Your task to perform on an android device: toggle sleep mode Image 0: 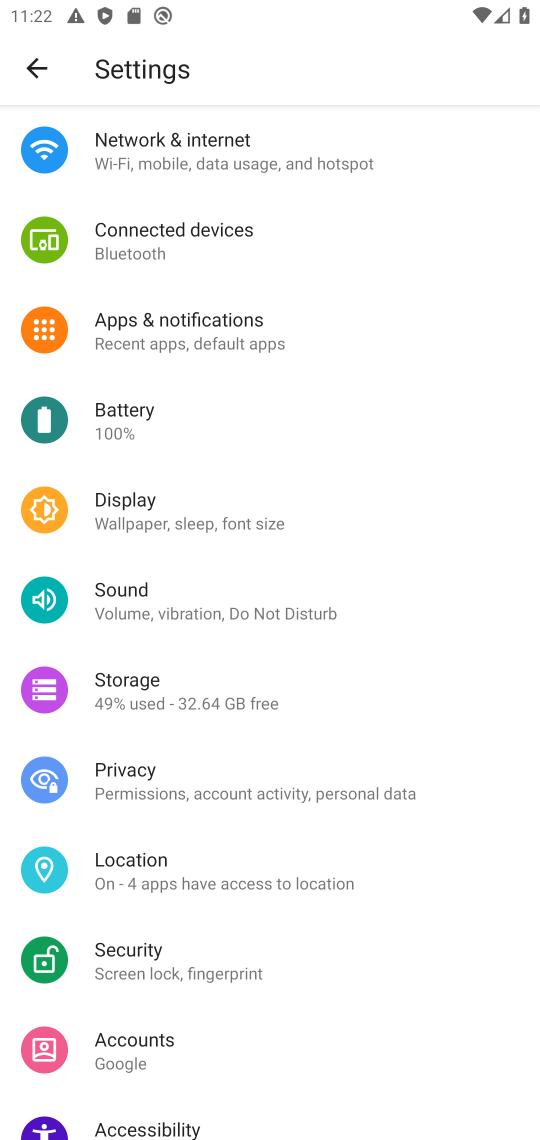
Step 0: press home button
Your task to perform on an android device: toggle sleep mode Image 1: 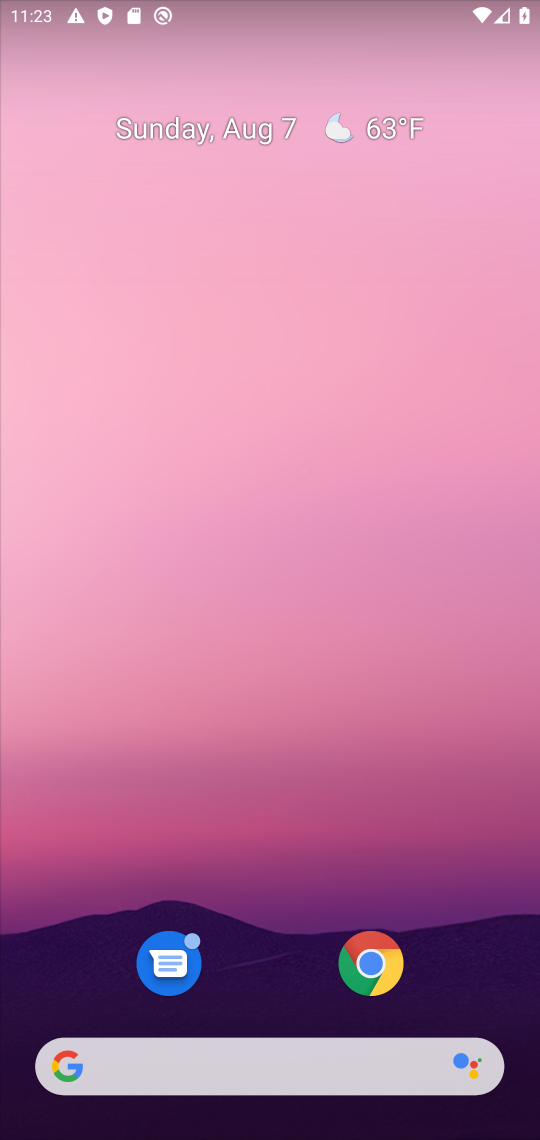
Step 1: drag from (476, 981) to (146, 9)
Your task to perform on an android device: toggle sleep mode Image 2: 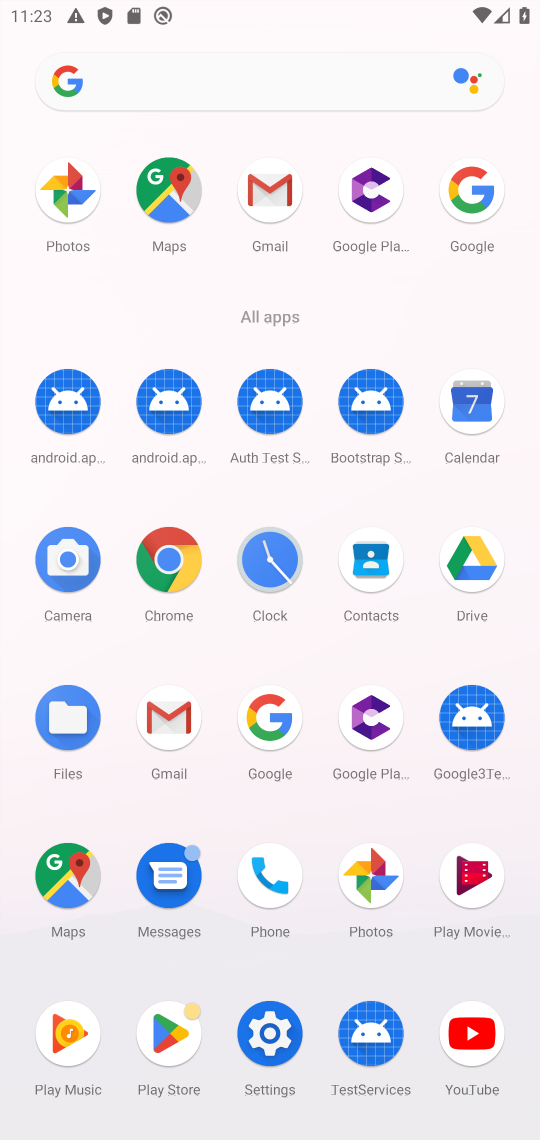
Step 2: click (262, 1018)
Your task to perform on an android device: toggle sleep mode Image 3: 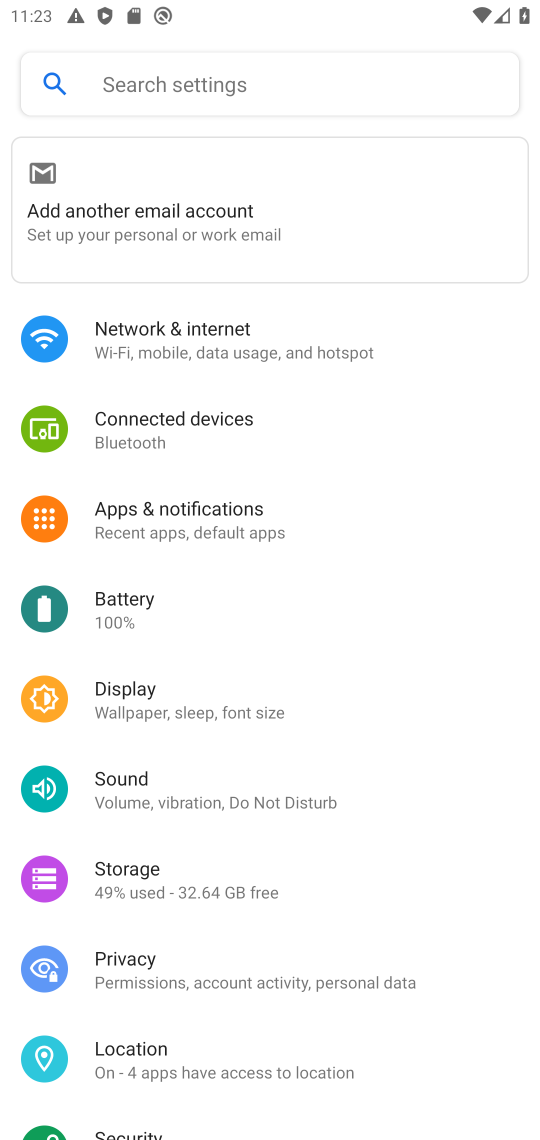
Step 3: task complete